Your task to perform on an android device: toggle data saver in the chrome app Image 0: 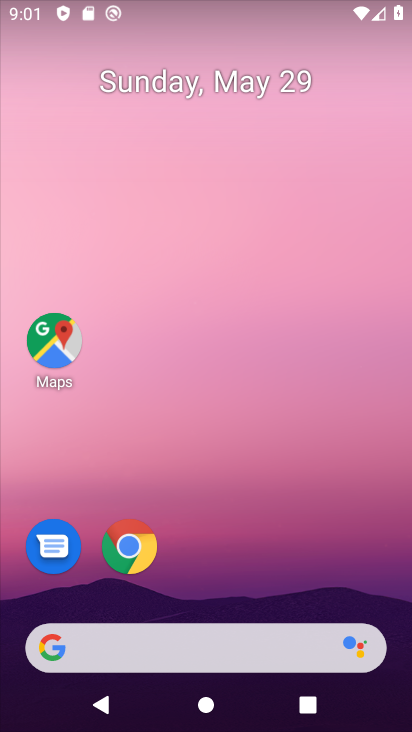
Step 0: click (128, 560)
Your task to perform on an android device: toggle data saver in the chrome app Image 1: 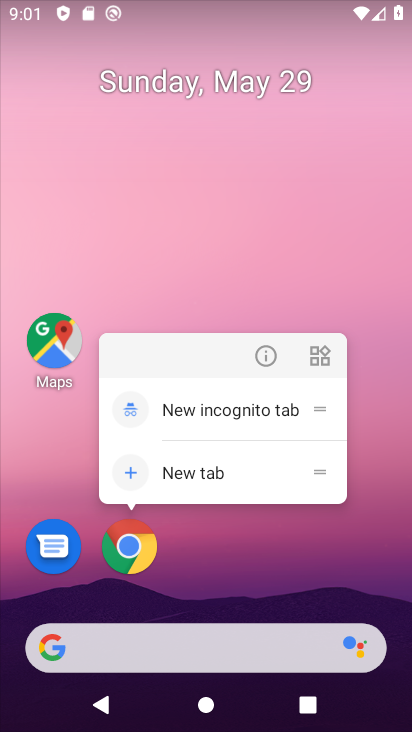
Step 1: click (133, 554)
Your task to perform on an android device: toggle data saver in the chrome app Image 2: 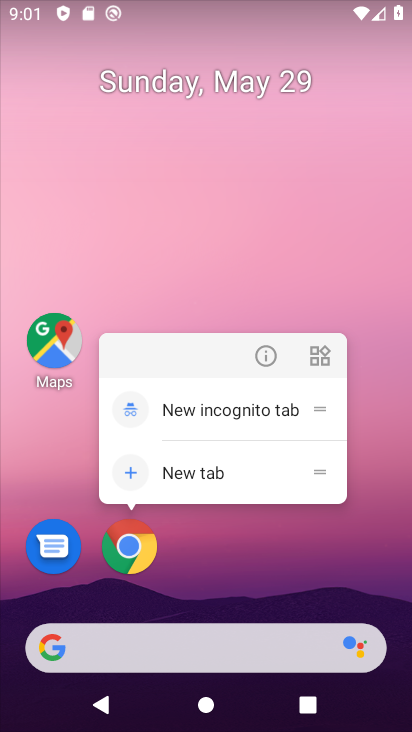
Step 2: click (134, 557)
Your task to perform on an android device: toggle data saver in the chrome app Image 3: 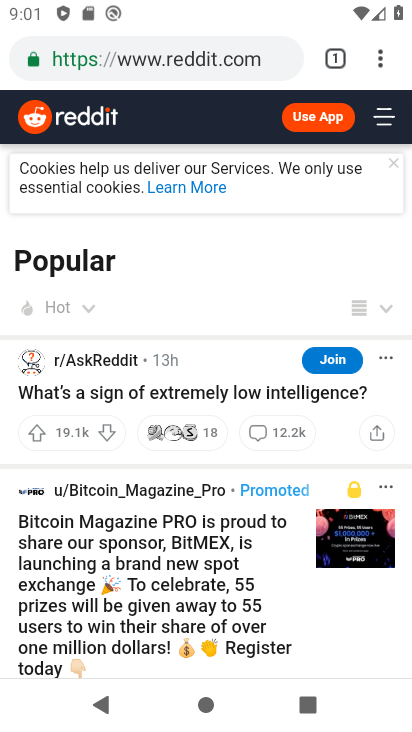
Step 3: drag from (383, 69) to (270, 582)
Your task to perform on an android device: toggle data saver in the chrome app Image 4: 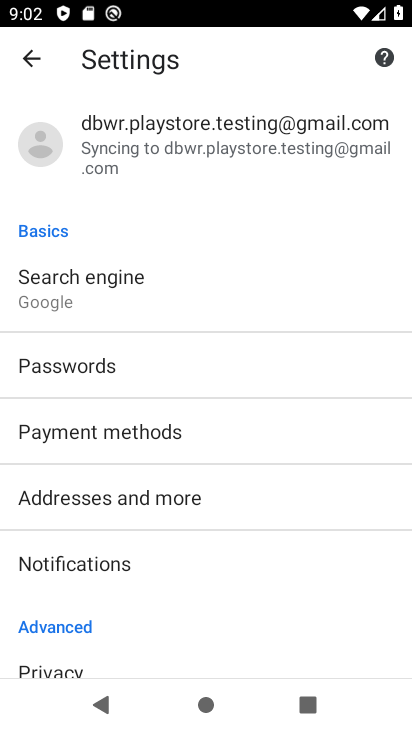
Step 4: drag from (260, 658) to (353, 264)
Your task to perform on an android device: toggle data saver in the chrome app Image 5: 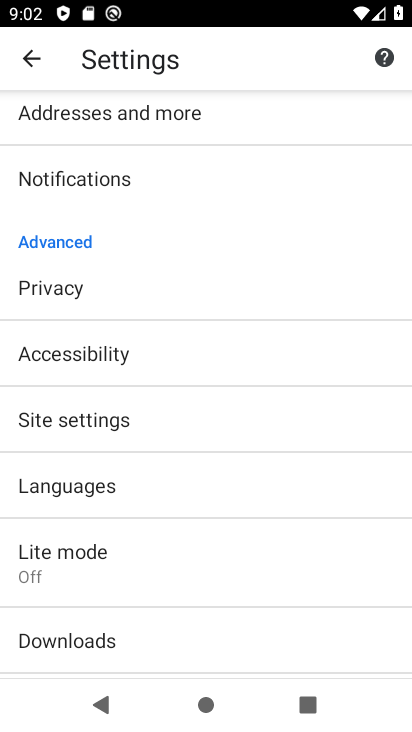
Step 5: drag from (164, 628) to (232, 361)
Your task to perform on an android device: toggle data saver in the chrome app Image 6: 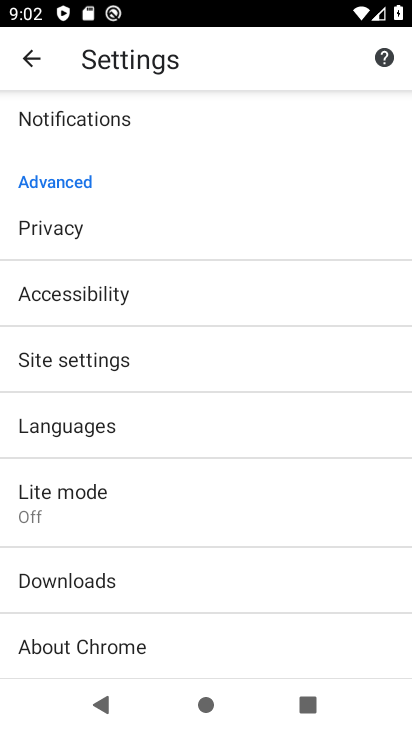
Step 6: click (173, 502)
Your task to perform on an android device: toggle data saver in the chrome app Image 7: 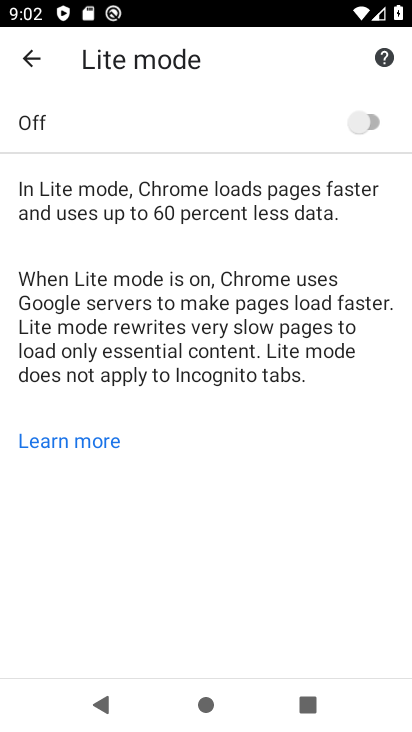
Step 7: click (387, 127)
Your task to perform on an android device: toggle data saver in the chrome app Image 8: 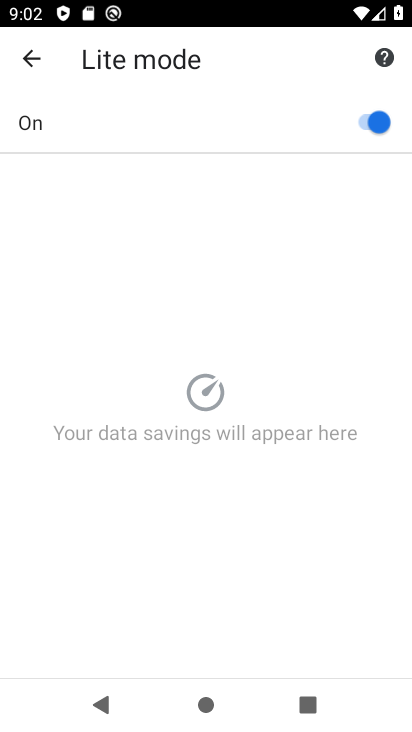
Step 8: task complete